Your task to perform on an android device: turn off location Image 0: 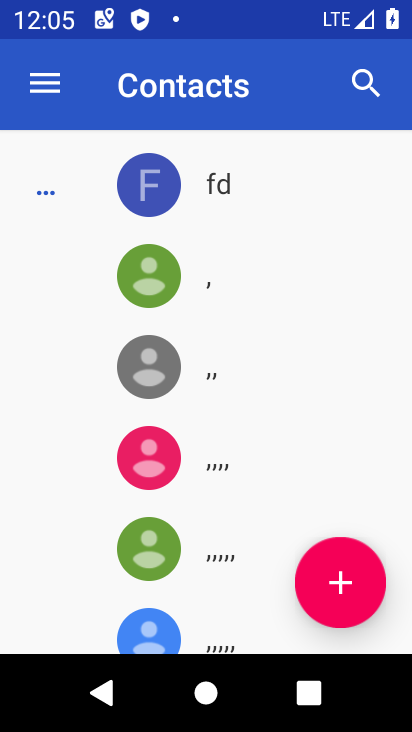
Step 0: press home button
Your task to perform on an android device: turn off location Image 1: 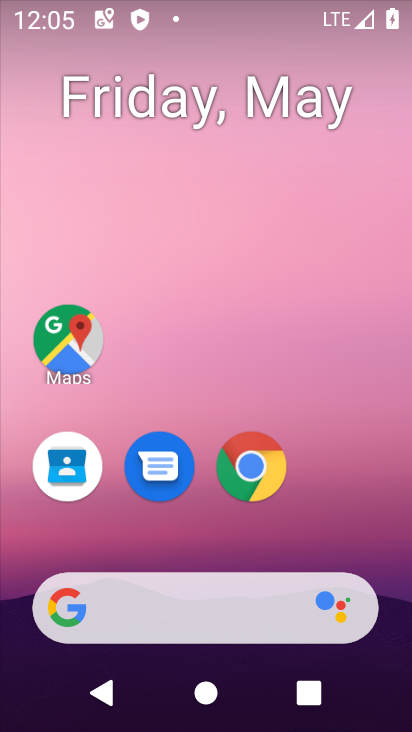
Step 1: drag from (297, 528) to (231, 148)
Your task to perform on an android device: turn off location Image 2: 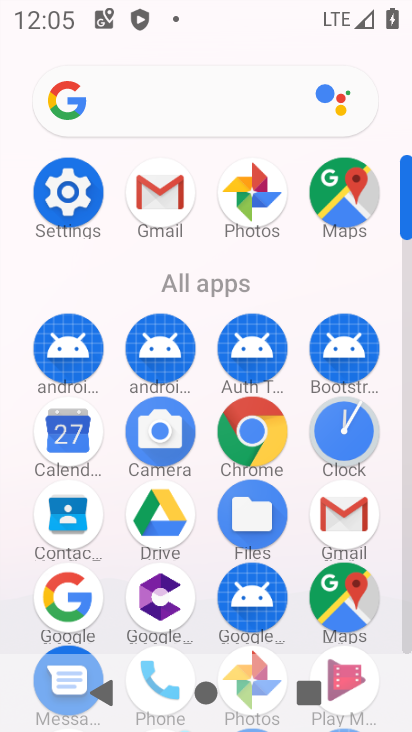
Step 2: click (357, 196)
Your task to perform on an android device: turn off location Image 3: 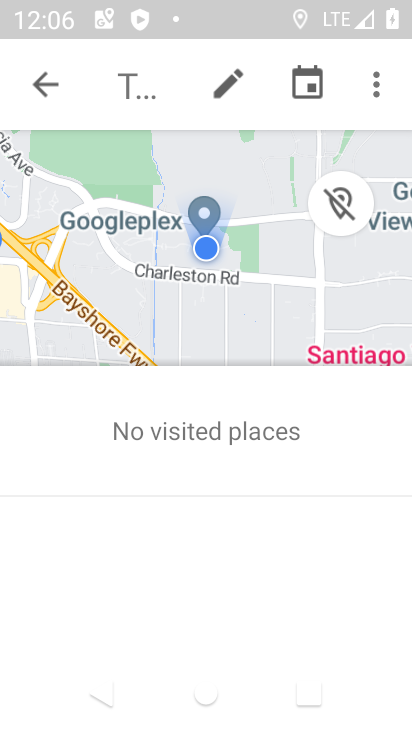
Step 3: click (370, 95)
Your task to perform on an android device: turn off location Image 4: 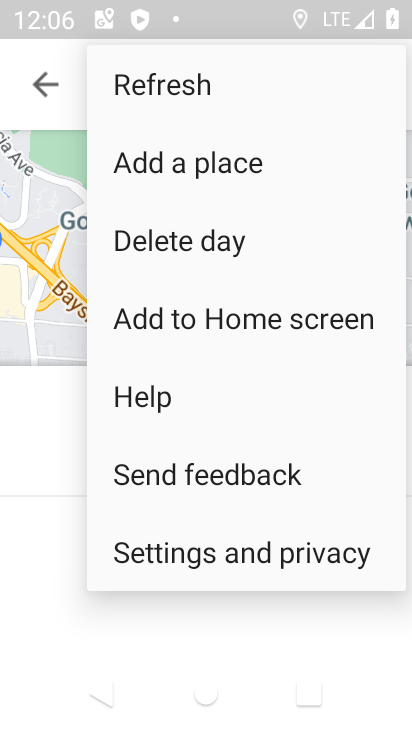
Step 4: click (53, 105)
Your task to perform on an android device: turn off location Image 5: 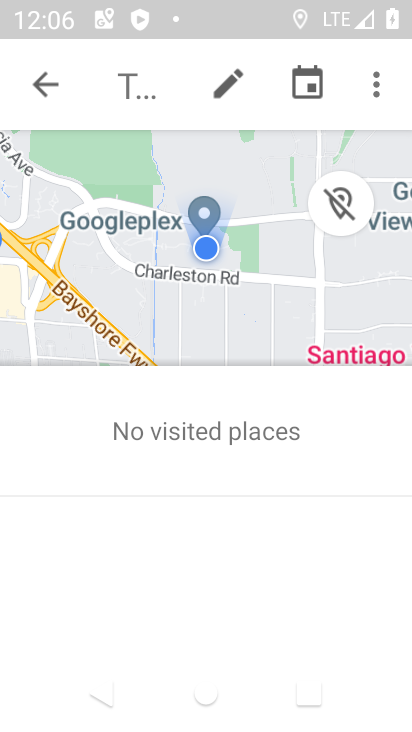
Step 5: click (28, 79)
Your task to perform on an android device: turn off location Image 6: 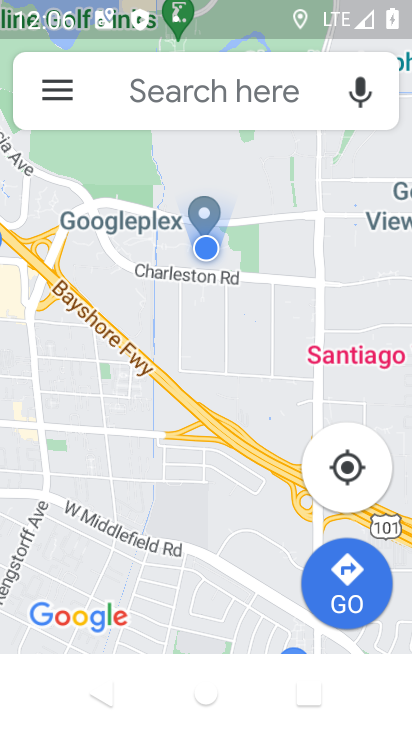
Step 6: click (58, 97)
Your task to perform on an android device: turn off location Image 7: 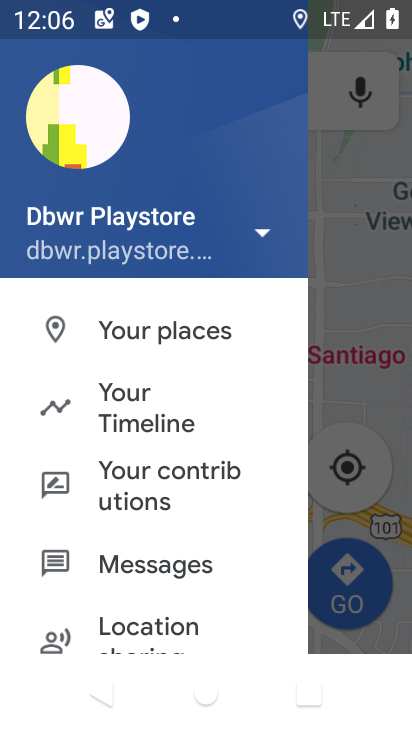
Step 7: drag from (147, 615) to (147, 378)
Your task to perform on an android device: turn off location Image 8: 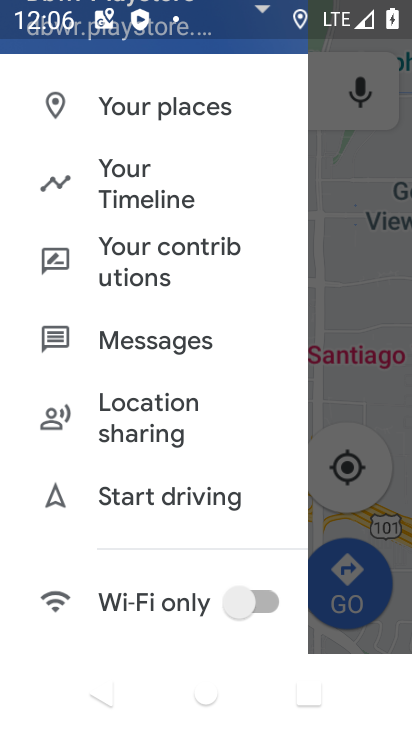
Step 8: press home button
Your task to perform on an android device: turn off location Image 9: 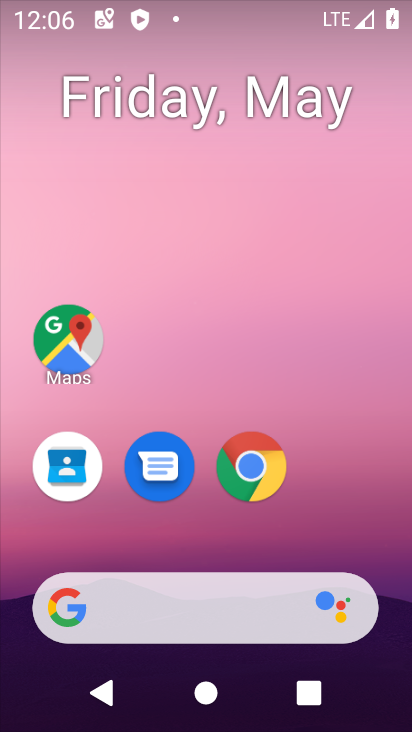
Step 9: drag from (200, 561) to (238, 90)
Your task to perform on an android device: turn off location Image 10: 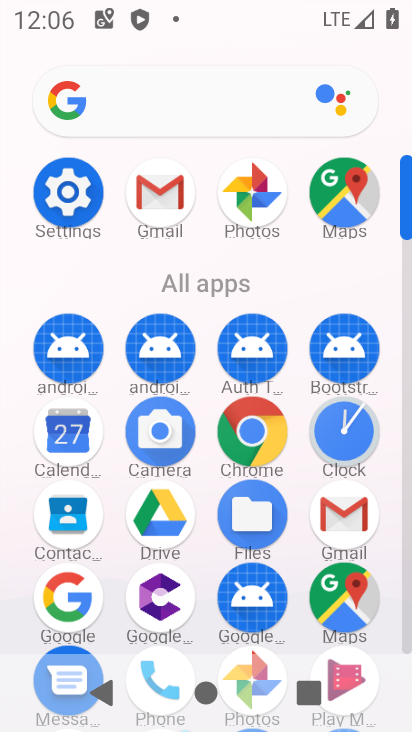
Step 10: click (65, 206)
Your task to perform on an android device: turn off location Image 11: 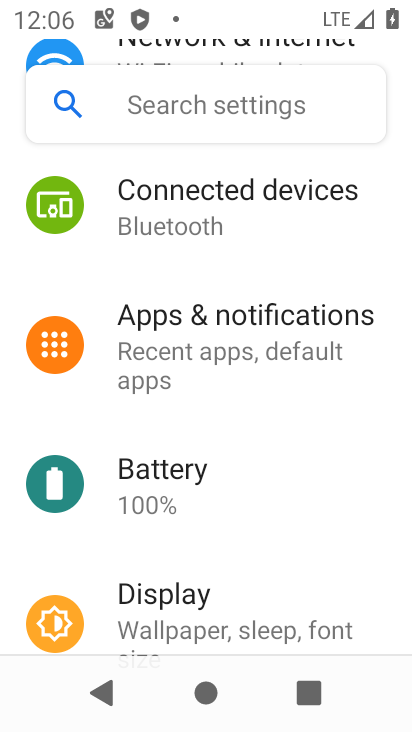
Step 11: drag from (186, 569) to (196, 254)
Your task to perform on an android device: turn off location Image 12: 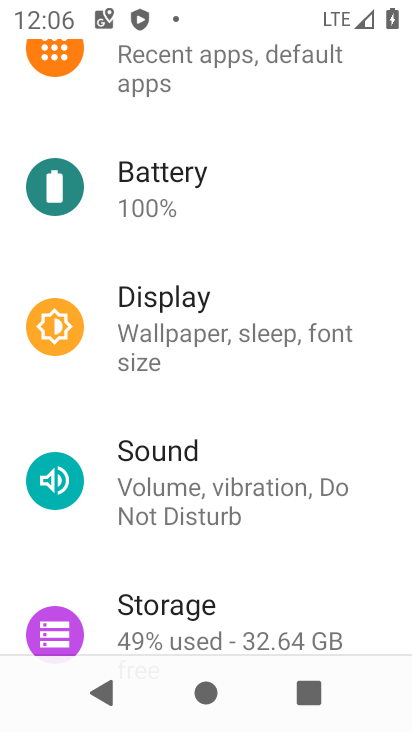
Step 12: drag from (211, 536) to (223, 272)
Your task to perform on an android device: turn off location Image 13: 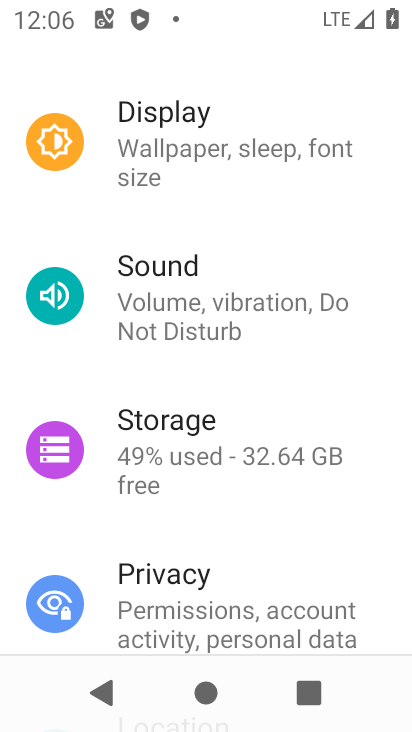
Step 13: drag from (181, 187) to (182, 482)
Your task to perform on an android device: turn off location Image 14: 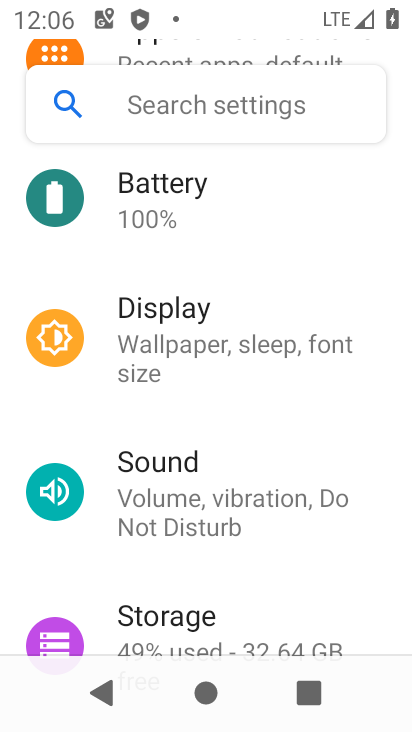
Step 14: drag from (210, 263) to (213, 532)
Your task to perform on an android device: turn off location Image 15: 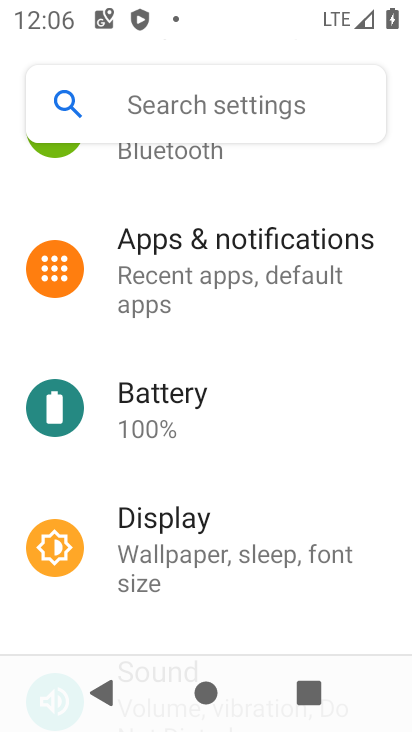
Step 15: drag from (208, 539) to (204, 179)
Your task to perform on an android device: turn off location Image 16: 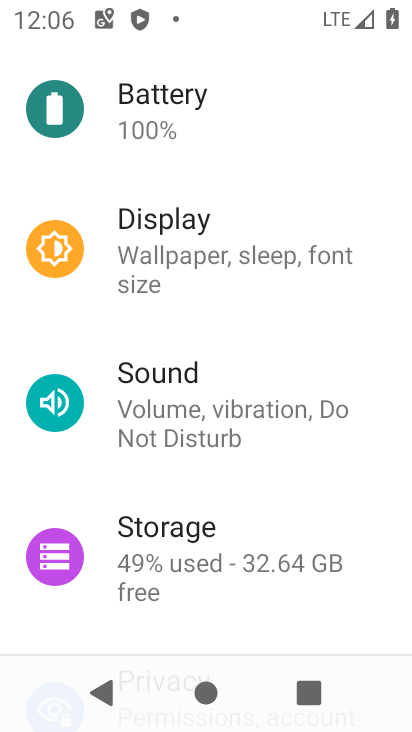
Step 16: drag from (239, 548) to (237, 193)
Your task to perform on an android device: turn off location Image 17: 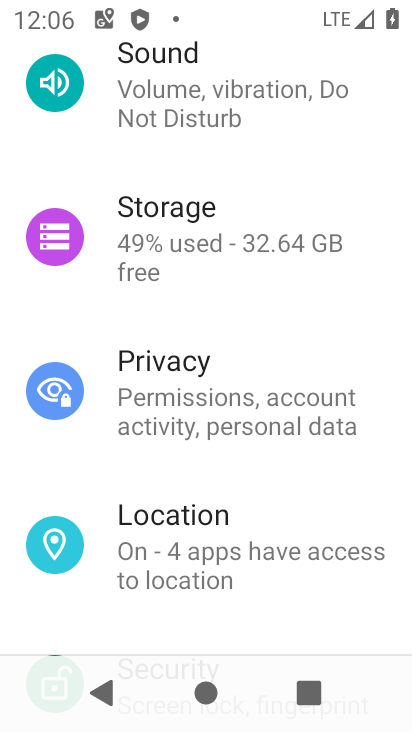
Step 17: click (204, 542)
Your task to perform on an android device: turn off location Image 18: 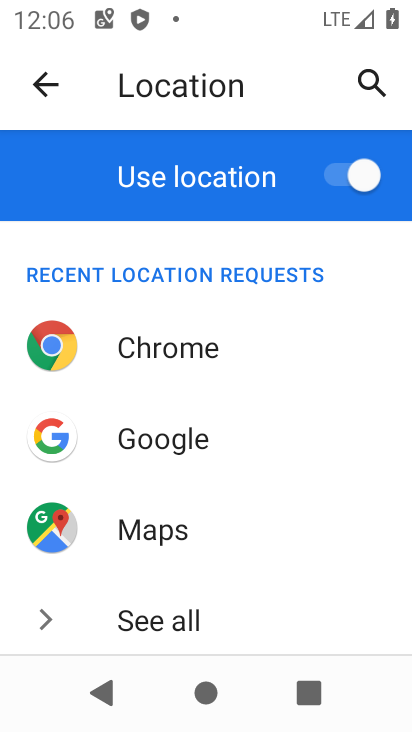
Step 18: click (320, 177)
Your task to perform on an android device: turn off location Image 19: 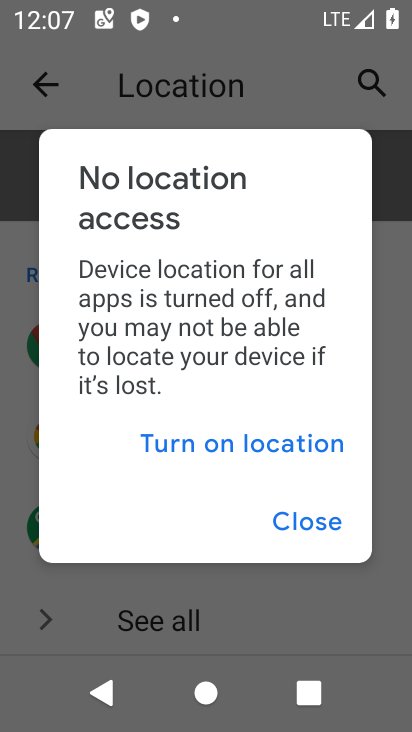
Step 19: task complete